Your task to perform on an android device: Search for Italian restaurants on Maps Image 0: 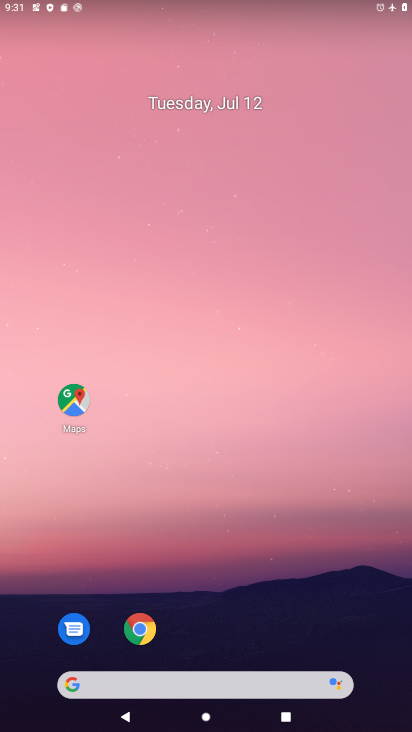
Step 0: drag from (137, 600) to (168, 236)
Your task to perform on an android device: Search for Italian restaurants on Maps Image 1: 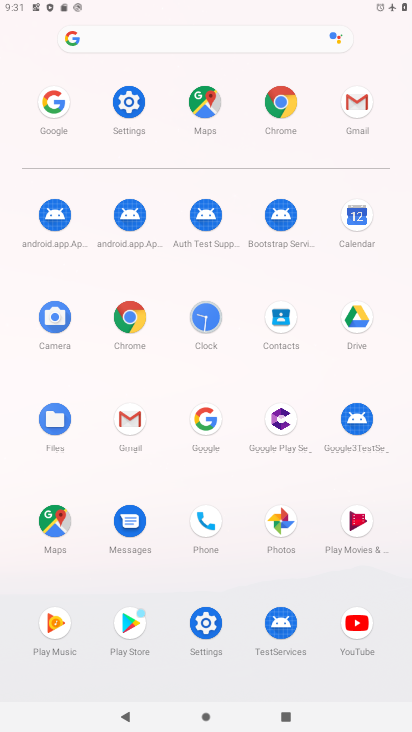
Step 1: click (205, 94)
Your task to perform on an android device: Search for Italian restaurants on Maps Image 2: 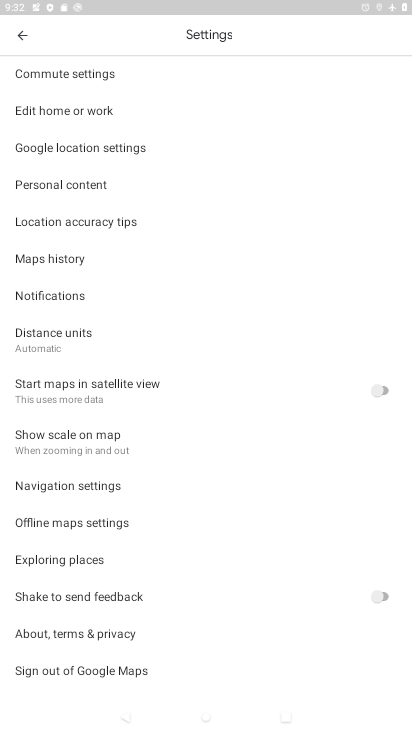
Step 2: click (23, 25)
Your task to perform on an android device: Search for Italian restaurants on Maps Image 3: 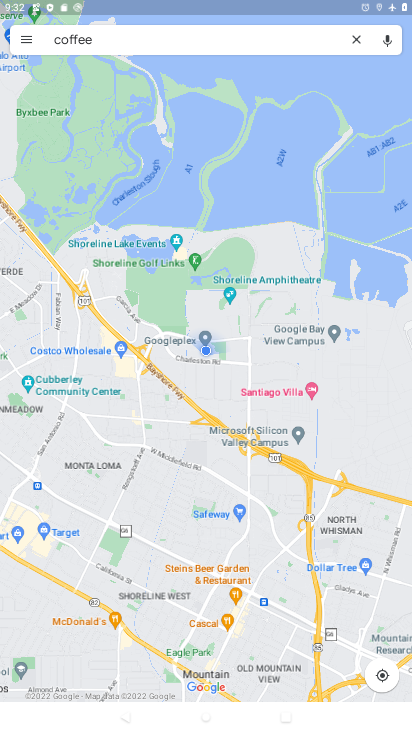
Step 3: click (358, 31)
Your task to perform on an android device: Search for Italian restaurants on Maps Image 4: 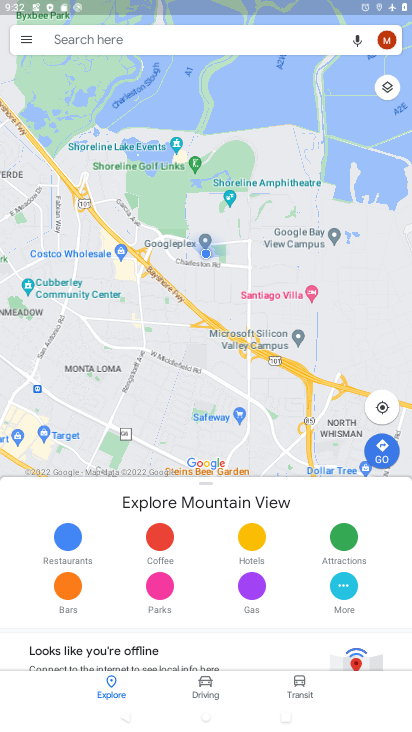
Step 4: click (123, 29)
Your task to perform on an android device: Search for Italian restaurants on Maps Image 5: 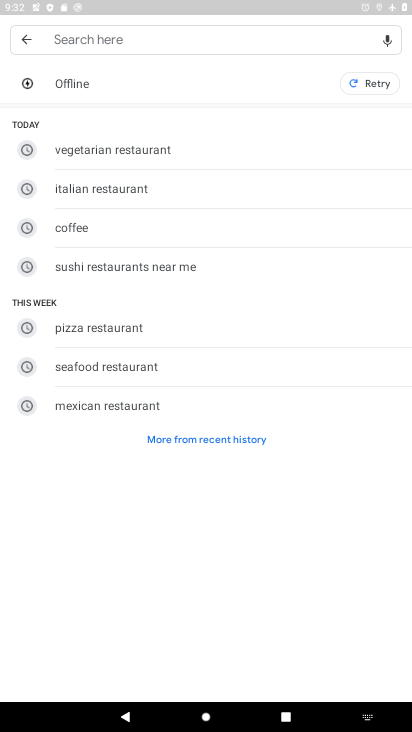
Step 5: type " Italian restaurants "
Your task to perform on an android device: Search for Italian restaurants on Maps Image 6: 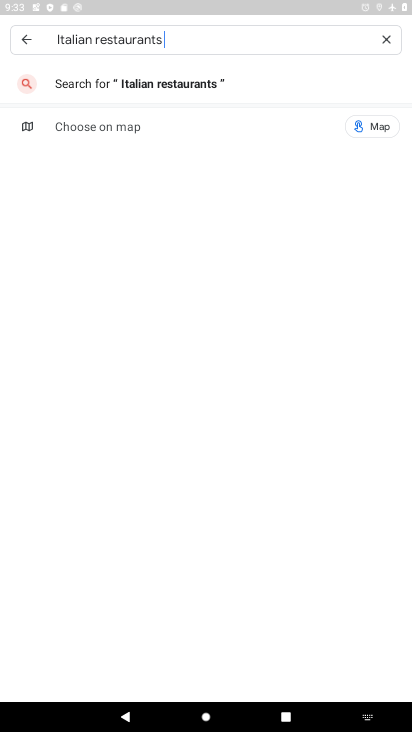
Step 6: click (168, 86)
Your task to perform on an android device: Search for Italian restaurants on Maps Image 7: 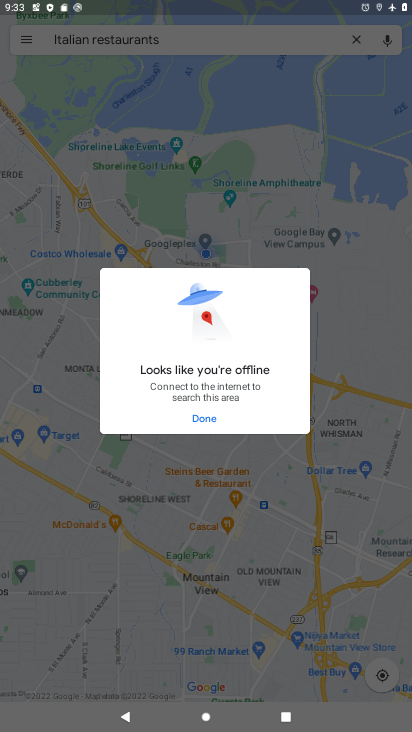
Step 7: click (196, 421)
Your task to perform on an android device: Search for Italian restaurants on Maps Image 8: 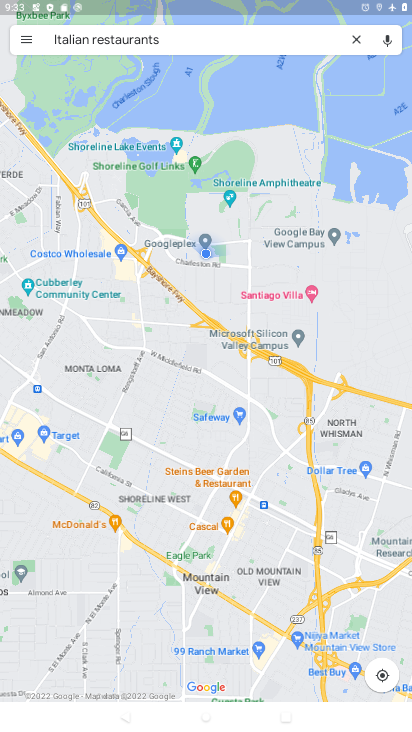
Step 8: task complete